Your task to perform on an android device: Open Chrome and go to the settings page Image 0: 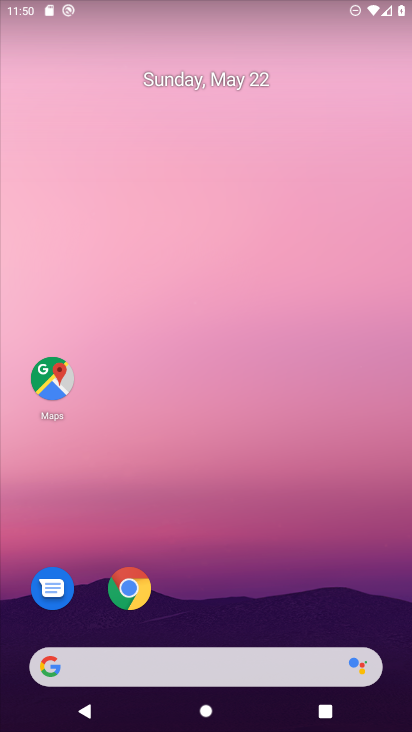
Step 0: drag from (241, 692) to (316, 48)
Your task to perform on an android device: Open Chrome and go to the settings page Image 1: 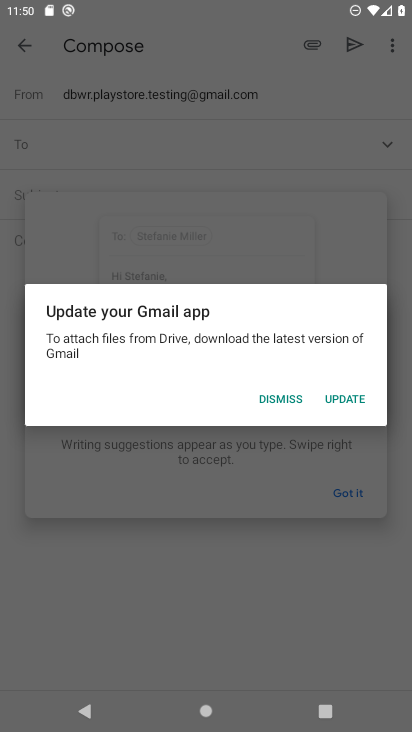
Step 1: click (298, 399)
Your task to perform on an android device: Open Chrome and go to the settings page Image 2: 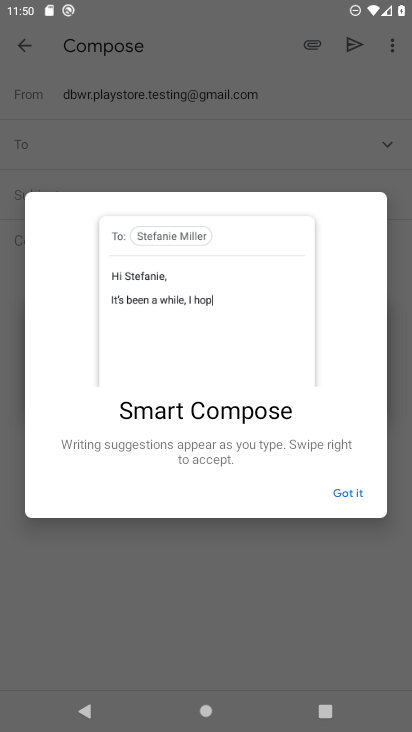
Step 2: click (352, 502)
Your task to perform on an android device: Open Chrome and go to the settings page Image 3: 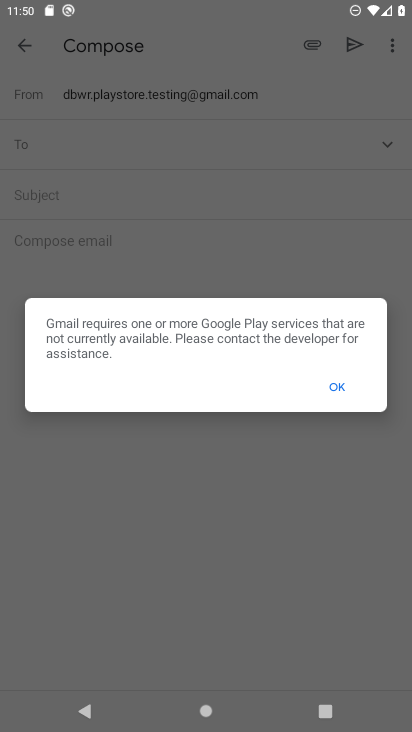
Step 3: press home button
Your task to perform on an android device: Open Chrome and go to the settings page Image 4: 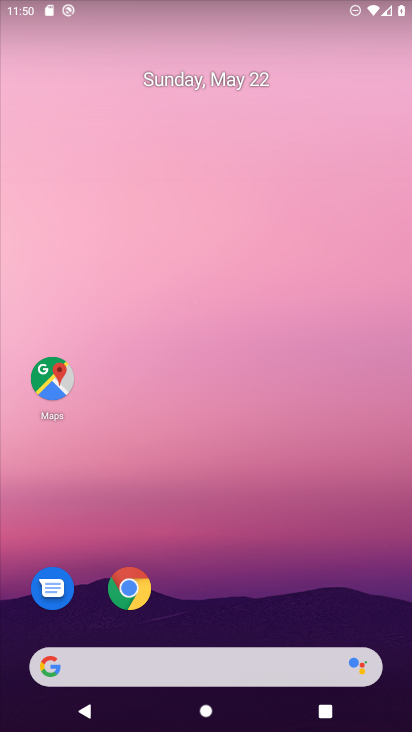
Step 4: drag from (273, 687) to (135, 0)
Your task to perform on an android device: Open Chrome and go to the settings page Image 5: 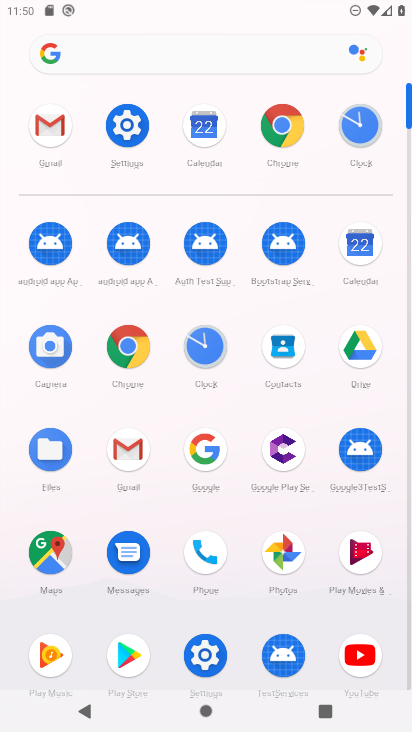
Step 5: click (296, 119)
Your task to perform on an android device: Open Chrome and go to the settings page Image 6: 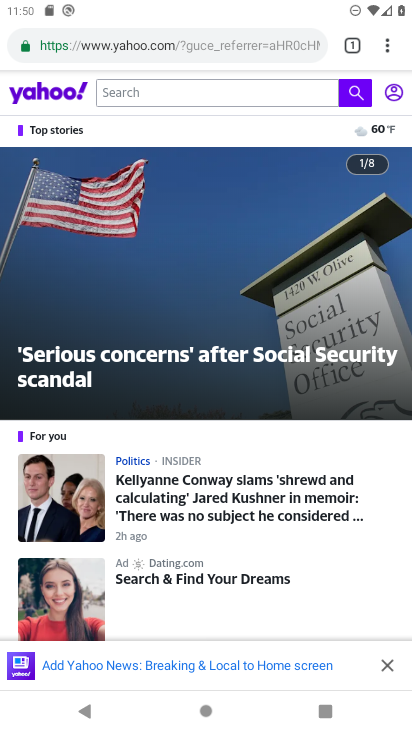
Step 6: click (393, 39)
Your task to perform on an android device: Open Chrome and go to the settings page Image 7: 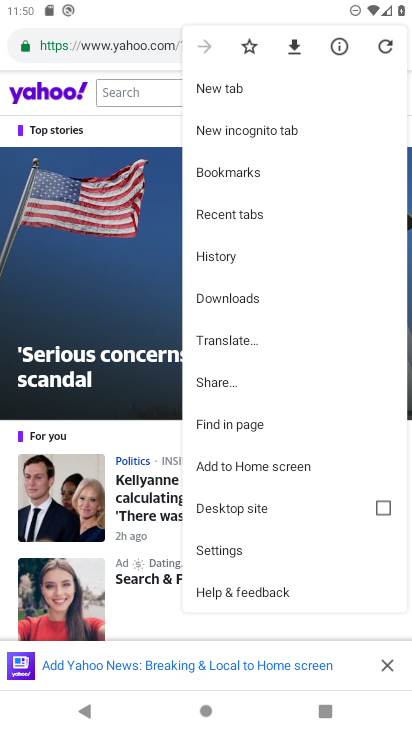
Step 7: click (232, 550)
Your task to perform on an android device: Open Chrome and go to the settings page Image 8: 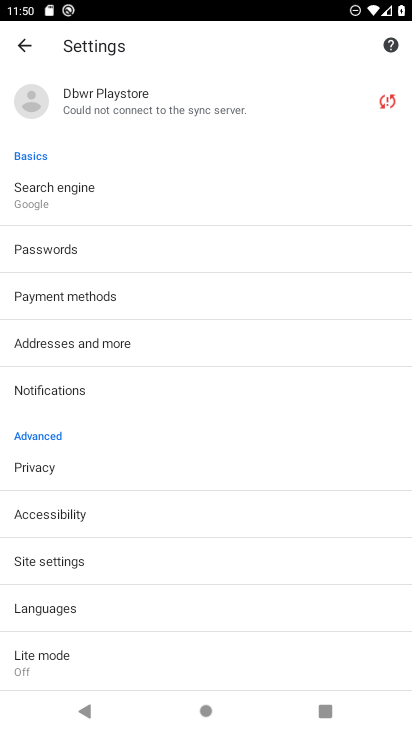
Step 8: press home button
Your task to perform on an android device: Open Chrome and go to the settings page Image 9: 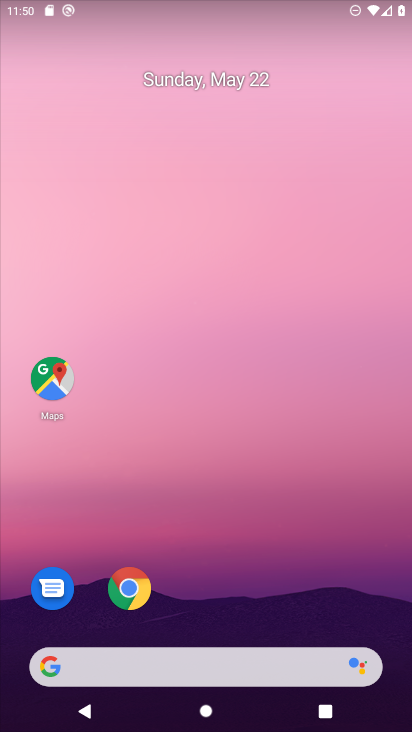
Step 9: drag from (299, 689) to (266, 96)
Your task to perform on an android device: Open Chrome and go to the settings page Image 10: 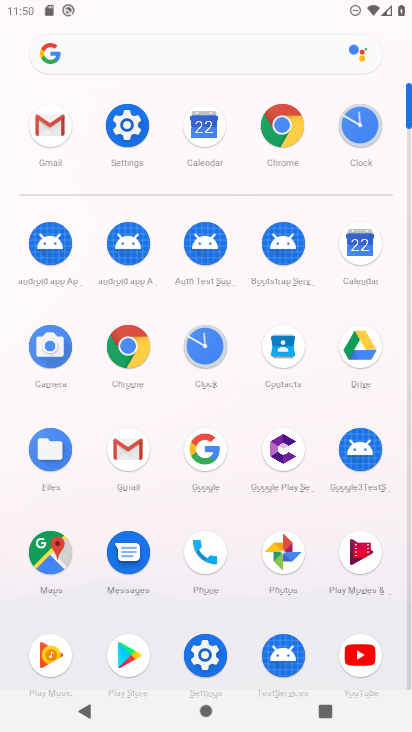
Step 10: click (296, 126)
Your task to perform on an android device: Open Chrome and go to the settings page Image 11: 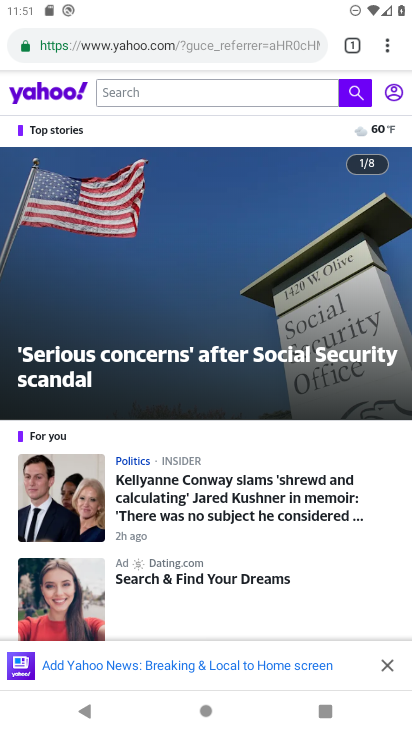
Step 11: click (387, 45)
Your task to perform on an android device: Open Chrome and go to the settings page Image 12: 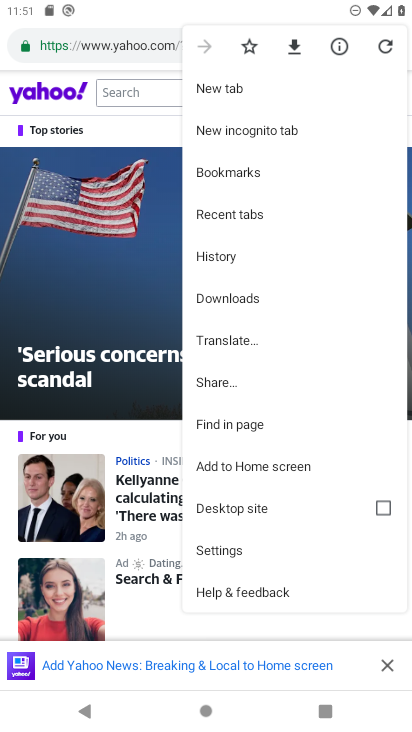
Step 12: click (218, 556)
Your task to perform on an android device: Open Chrome and go to the settings page Image 13: 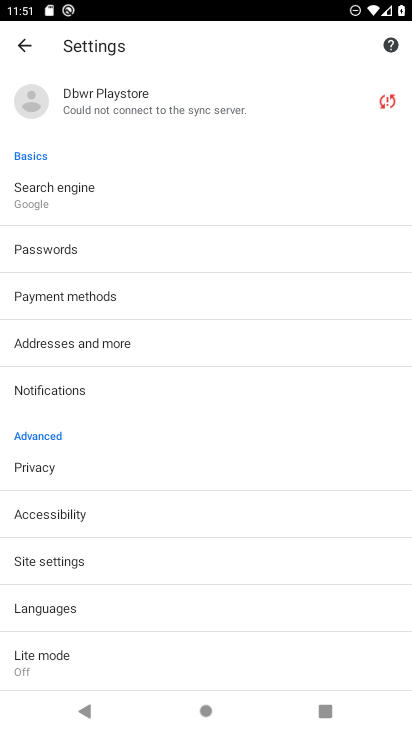
Step 13: task complete